Your task to perform on an android device: Go to Reddit.com Image 0: 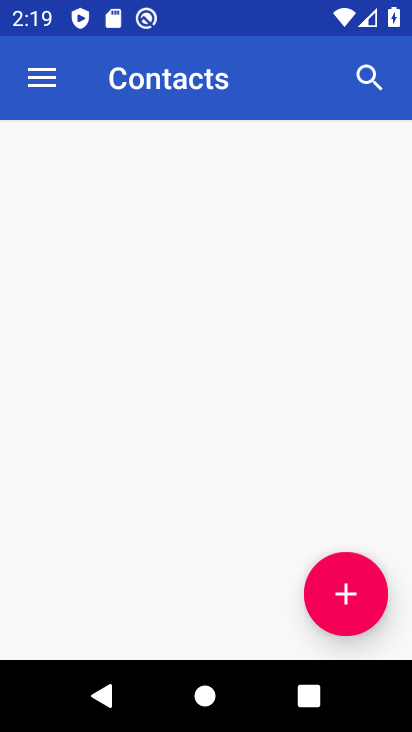
Step 0: press home button
Your task to perform on an android device: Go to Reddit.com Image 1: 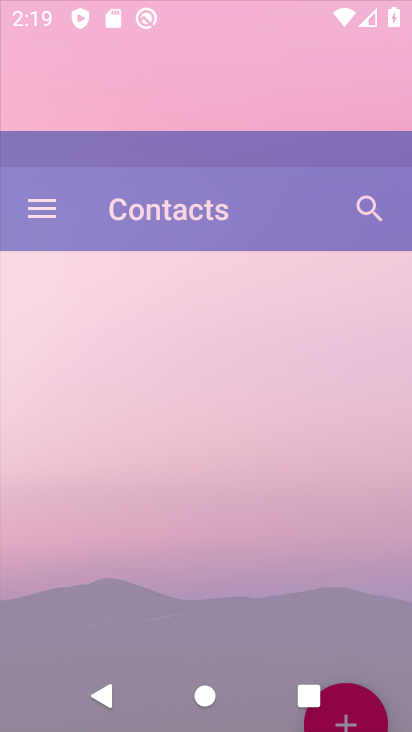
Step 1: press home button
Your task to perform on an android device: Go to Reddit.com Image 2: 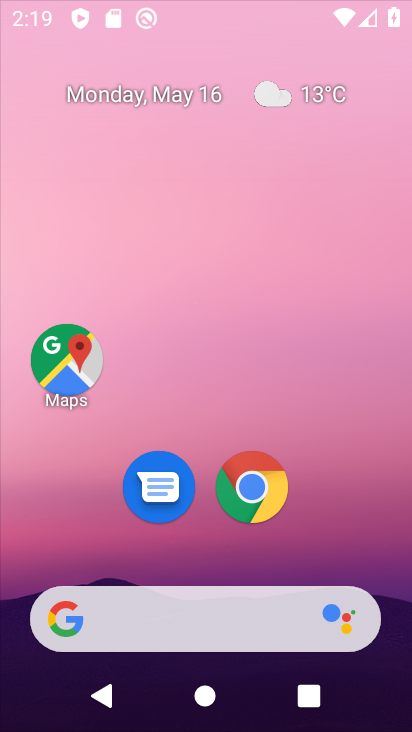
Step 2: press home button
Your task to perform on an android device: Go to Reddit.com Image 3: 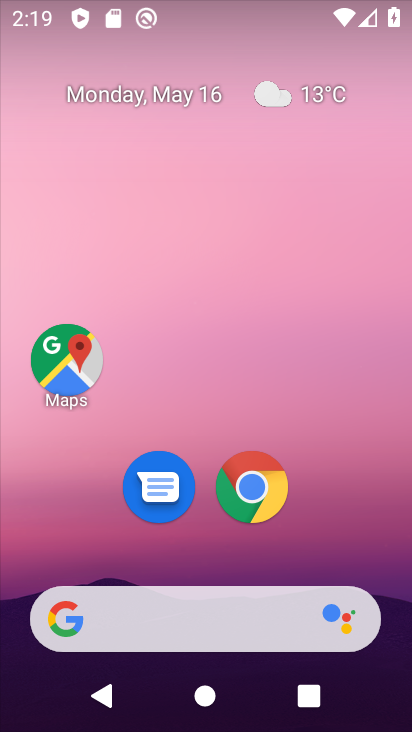
Step 3: drag from (279, 429) to (181, 162)
Your task to perform on an android device: Go to Reddit.com Image 4: 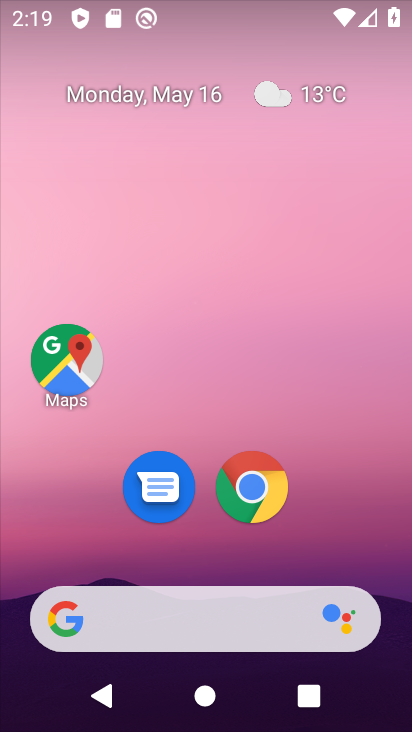
Step 4: click (267, 502)
Your task to perform on an android device: Go to Reddit.com Image 5: 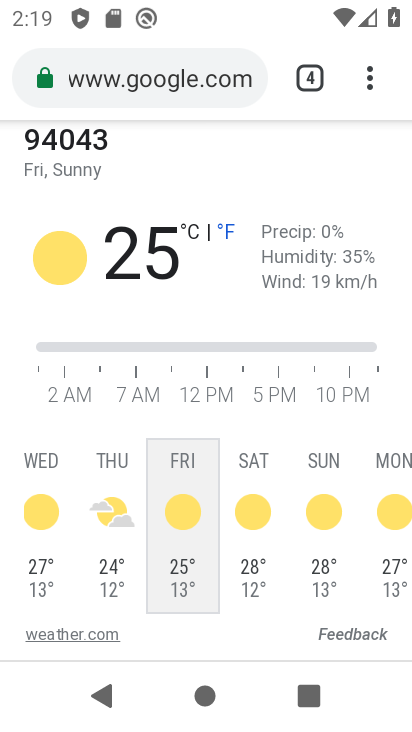
Step 5: click (313, 73)
Your task to perform on an android device: Go to Reddit.com Image 6: 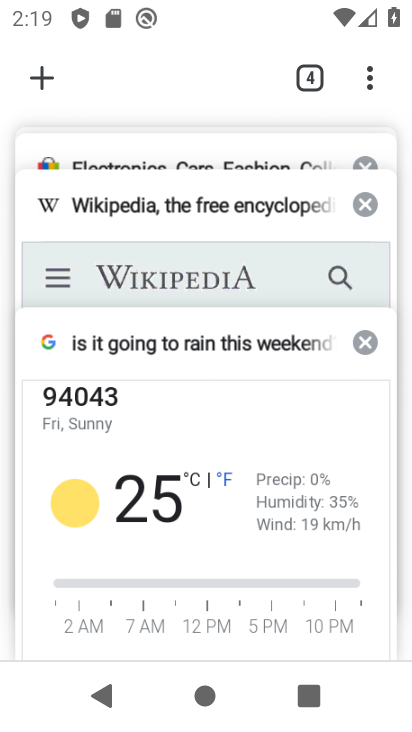
Step 6: click (35, 66)
Your task to perform on an android device: Go to Reddit.com Image 7: 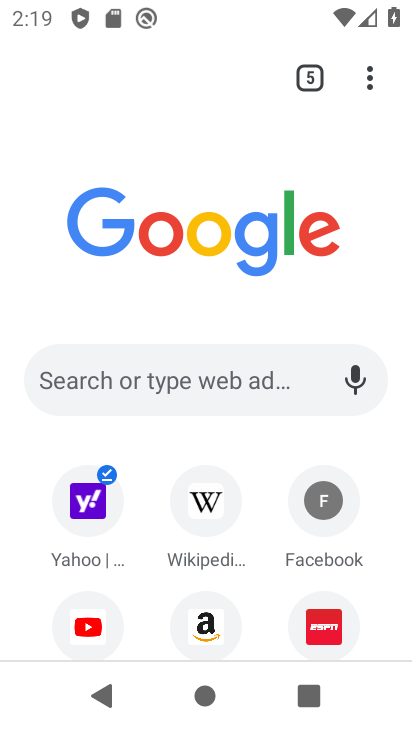
Step 7: click (123, 381)
Your task to perform on an android device: Go to Reddit.com Image 8: 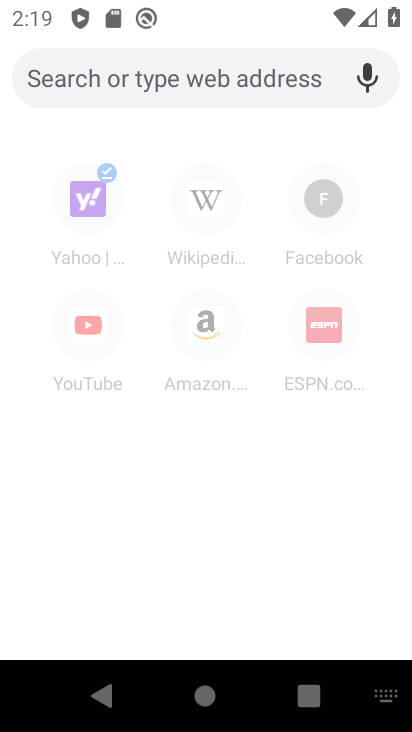
Step 8: type "reddit.com"
Your task to perform on an android device: Go to Reddit.com Image 9: 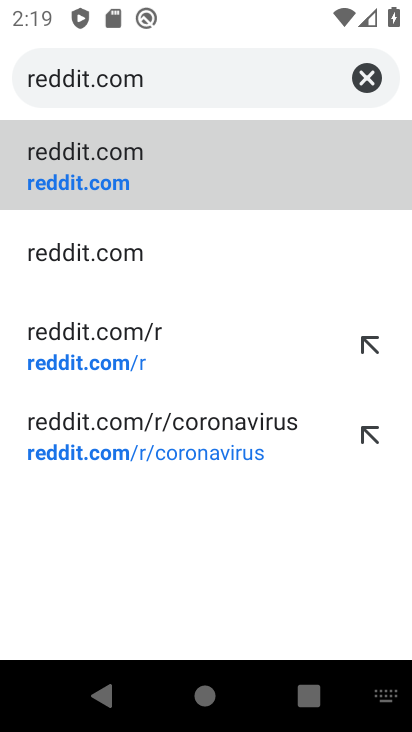
Step 9: click (125, 183)
Your task to perform on an android device: Go to Reddit.com Image 10: 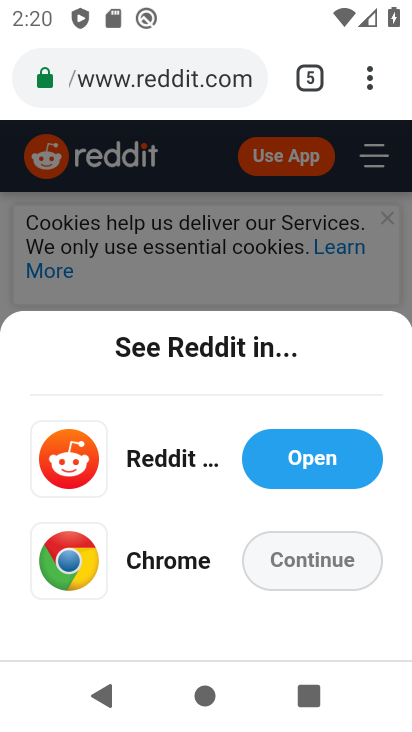
Step 10: click (285, 574)
Your task to perform on an android device: Go to Reddit.com Image 11: 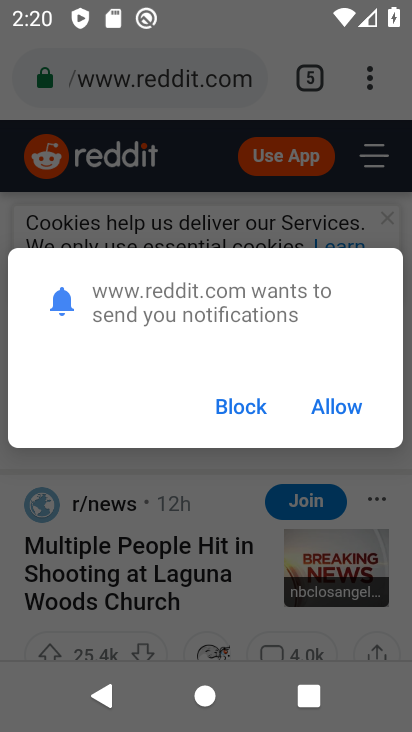
Step 11: click (320, 413)
Your task to perform on an android device: Go to Reddit.com Image 12: 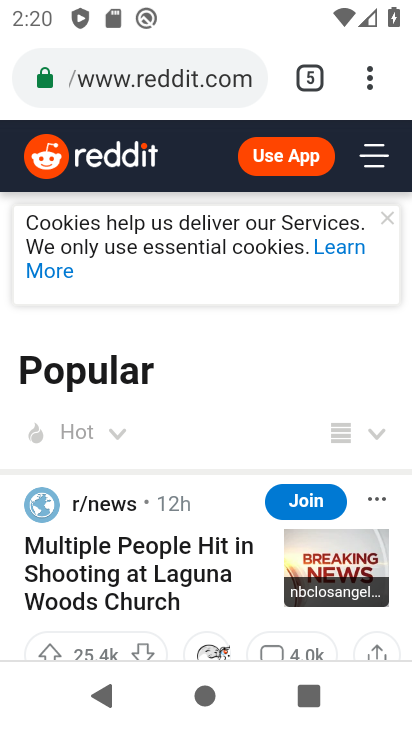
Step 12: task complete